Your task to perform on an android device: move an email to a new category in the gmail app Image 0: 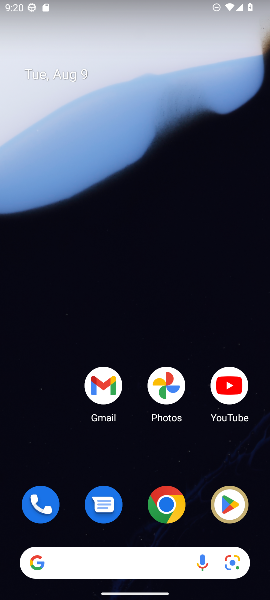
Step 0: click (103, 382)
Your task to perform on an android device: move an email to a new category in the gmail app Image 1: 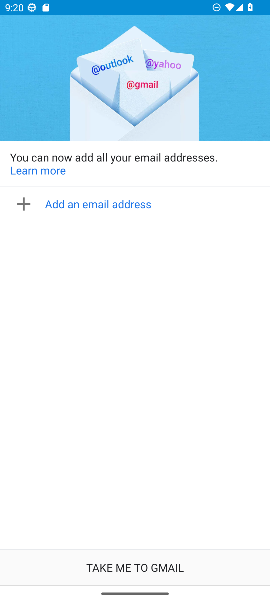
Step 1: click (111, 566)
Your task to perform on an android device: move an email to a new category in the gmail app Image 2: 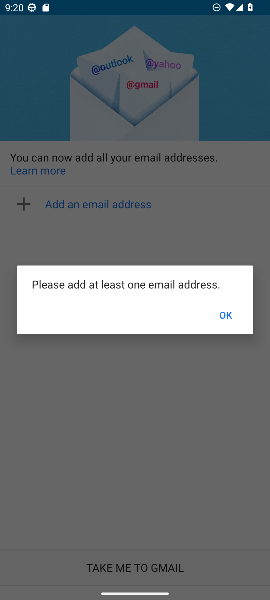
Step 2: click (224, 312)
Your task to perform on an android device: move an email to a new category in the gmail app Image 3: 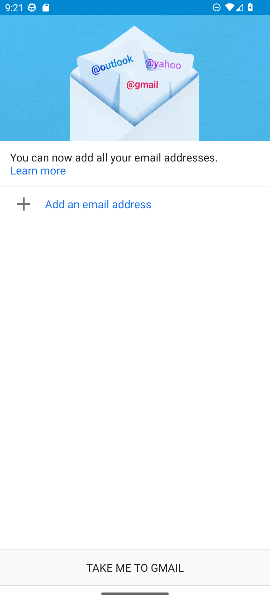
Step 3: task complete